Your task to perform on an android device: Open Google Chrome Image 0: 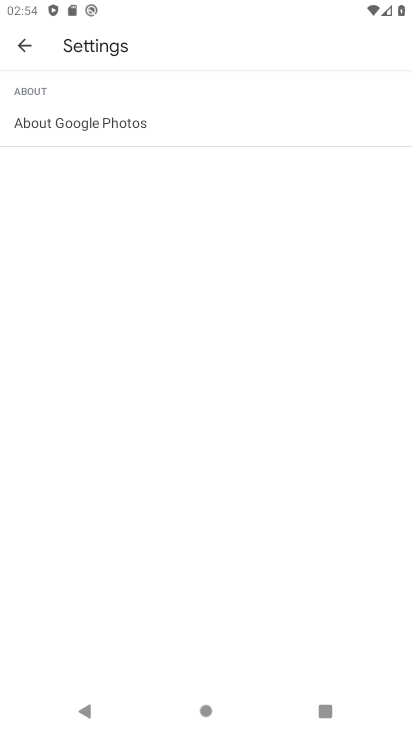
Step 0: press home button
Your task to perform on an android device: Open Google Chrome Image 1: 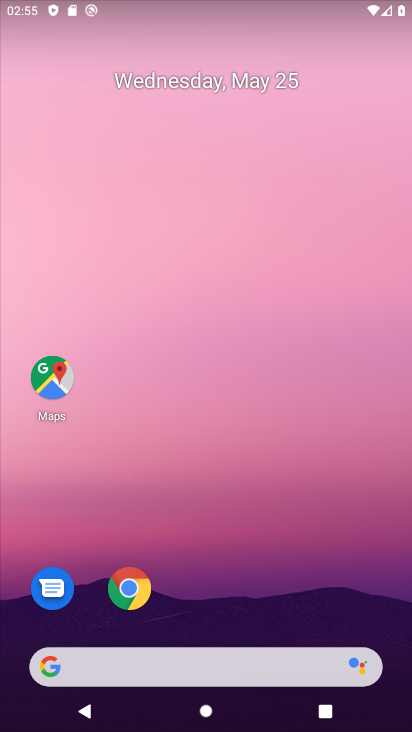
Step 1: click (128, 596)
Your task to perform on an android device: Open Google Chrome Image 2: 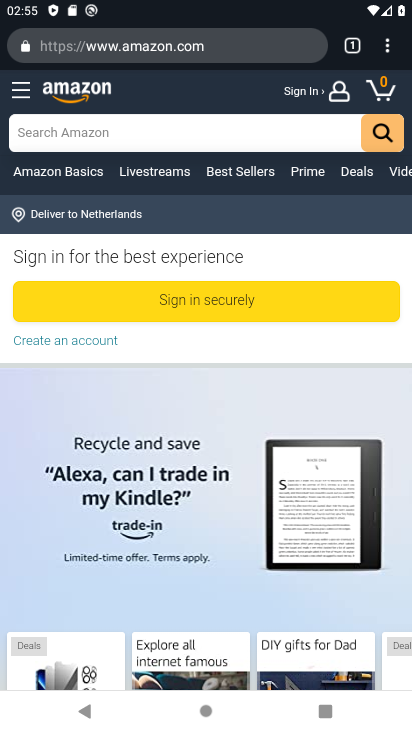
Step 2: click (87, 619)
Your task to perform on an android device: Open Google Chrome Image 3: 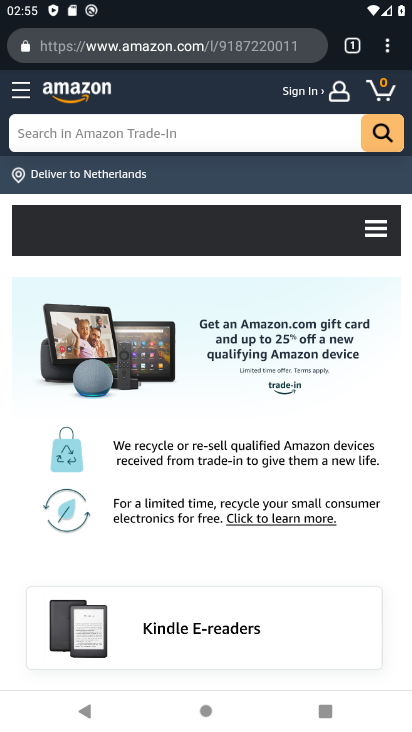
Step 3: task complete